Your task to perform on an android device: Is it going to rain tomorrow? Image 0: 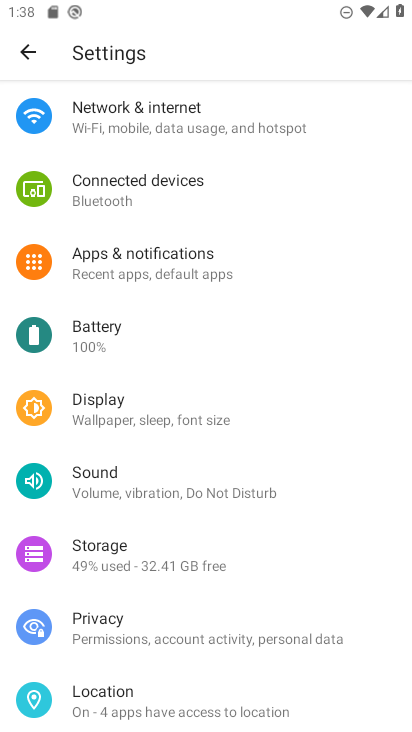
Step 0: drag from (214, 523) to (238, 331)
Your task to perform on an android device: Is it going to rain tomorrow? Image 1: 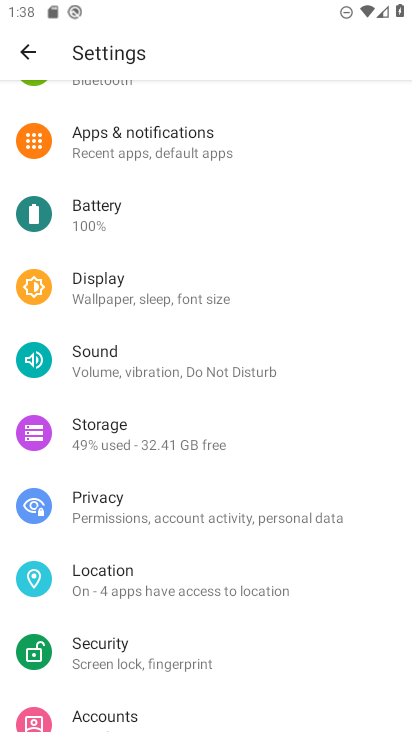
Step 1: press home button
Your task to perform on an android device: Is it going to rain tomorrow? Image 2: 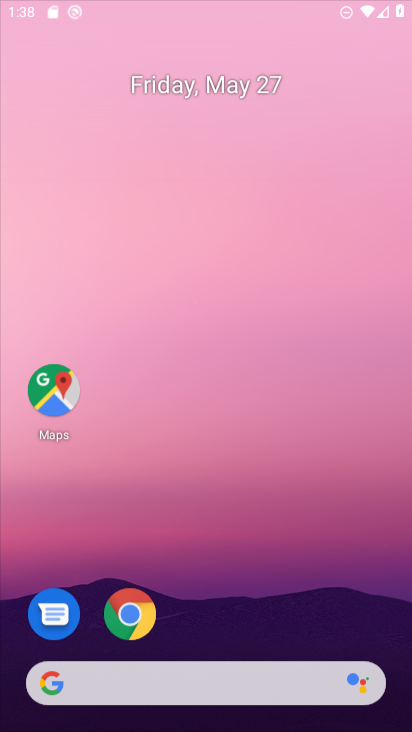
Step 2: drag from (241, 498) to (221, 113)
Your task to perform on an android device: Is it going to rain tomorrow? Image 3: 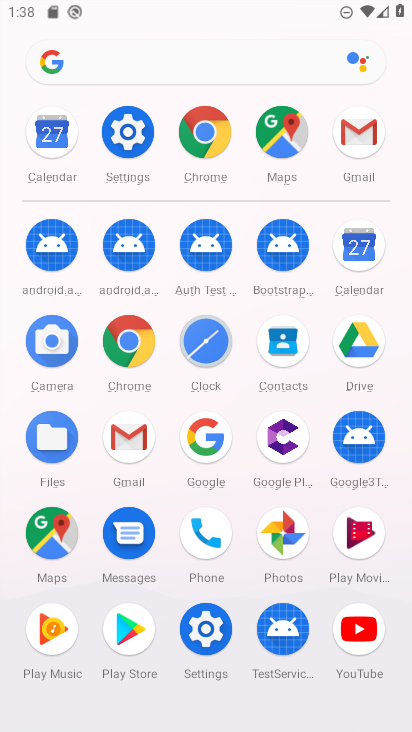
Step 3: click (202, 442)
Your task to perform on an android device: Is it going to rain tomorrow? Image 4: 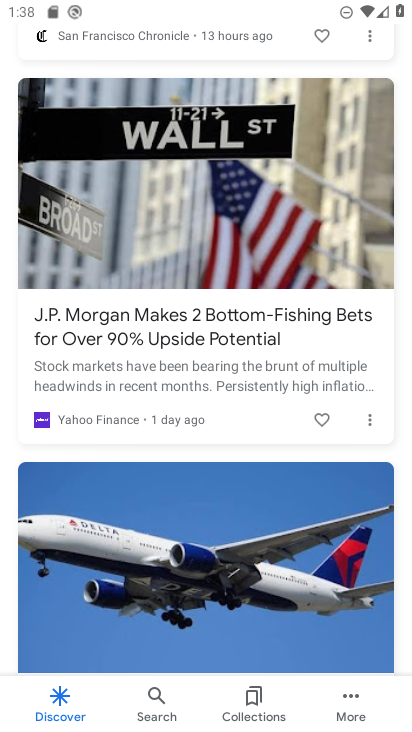
Step 4: drag from (213, 282) to (224, 597)
Your task to perform on an android device: Is it going to rain tomorrow? Image 5: 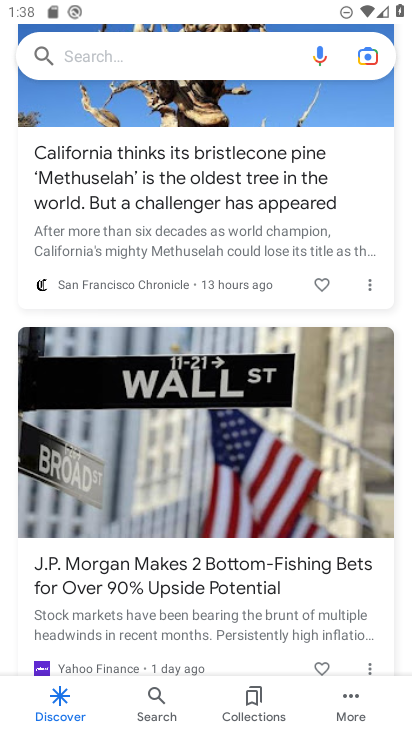
Step 5: drag from (186, 195) to (212, 640)
Your task to perform on an android device: Is it going to rain tomorrow? Image 6: 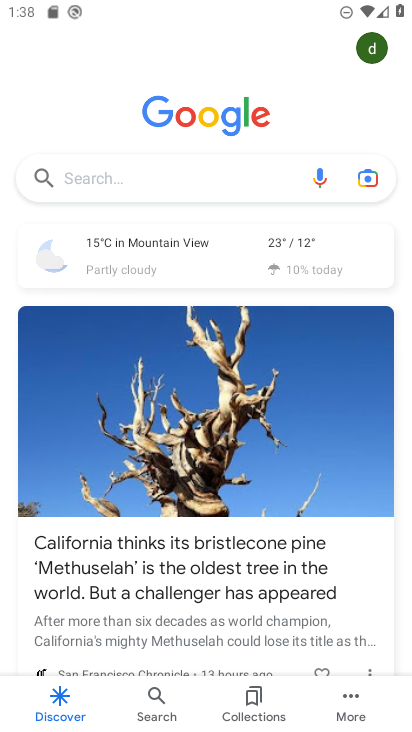
Step 6: click (101, 247)
Your task to perform on an android device: Is it going to rain tomorrow? Image 7: 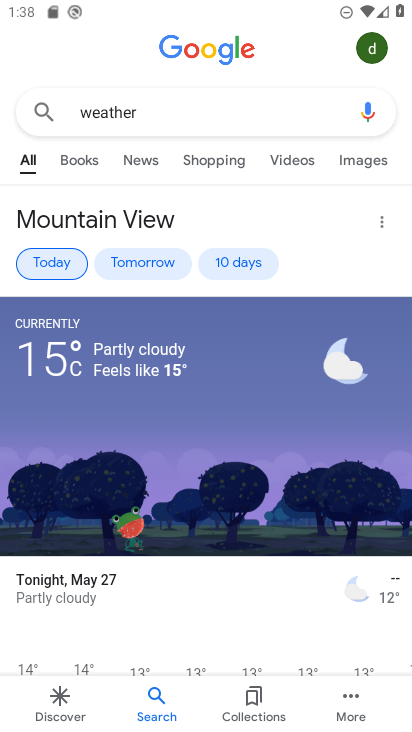
Step 7: click (167, 267)
Your task to perform on an android device: Is it going to rain tomorrow? Image 8: 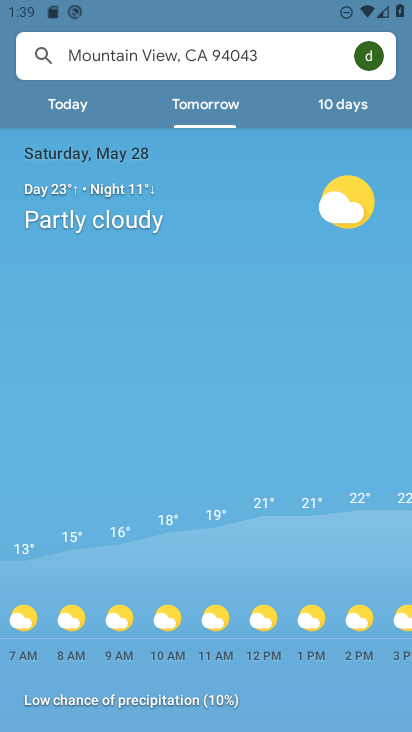
Step 8: task complete